Your task to perform on an android device: Search for Italian restaurants on Maps Image 0: 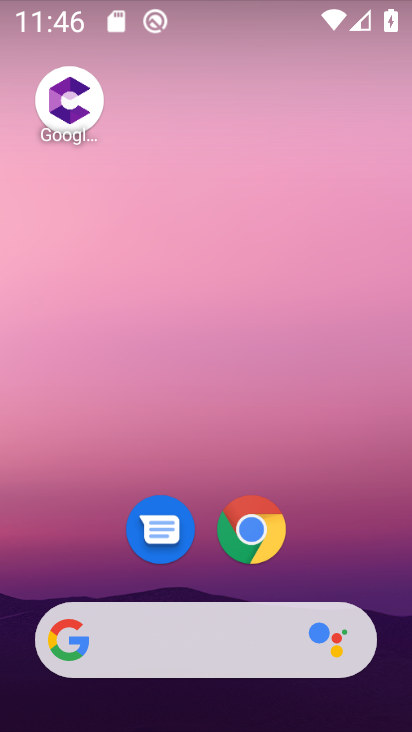
Step 0: drag from (327, 497) to (344, 112)
Your task to perform on an android device: Search for Italian restaurants on Maps Image 1: 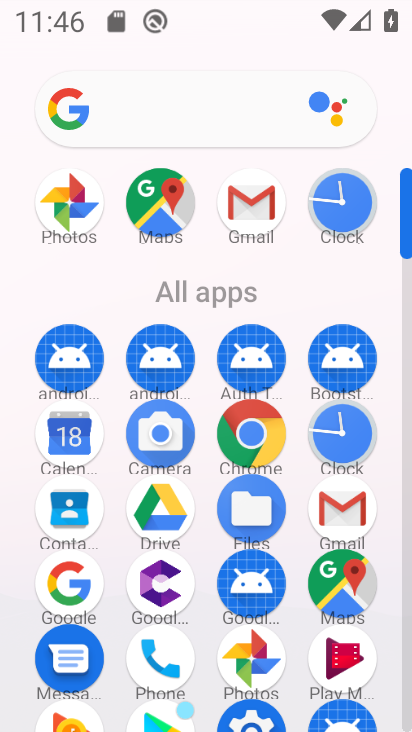
Step 1: click (154, 211)
Your task to perform on an android device: Search for Italian restaurants on Maps Image 2: 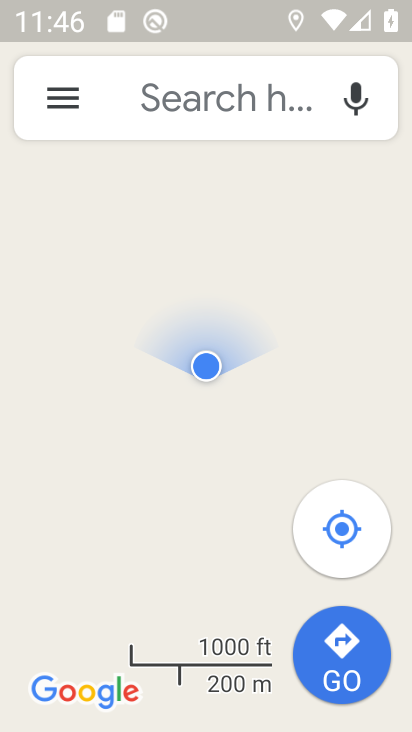
Step 2: click (222, 87)
Your task to perform on an android device: Search for Italian restaurants on Maps Image 3: 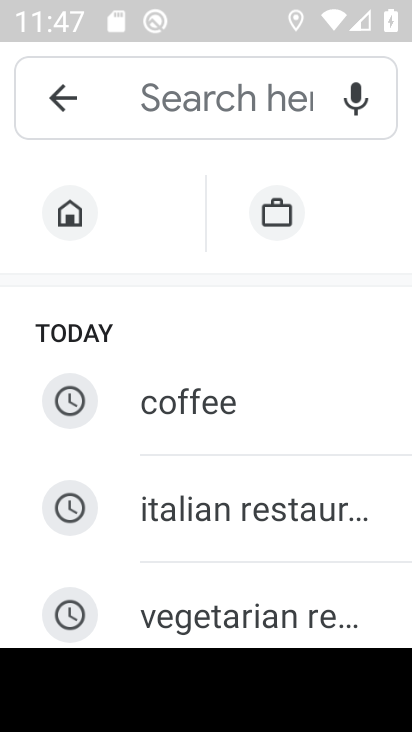
Step 3: click (201, 495)
Your task to perform on an android device: Search for Italian restaurants on Maps Image 4: 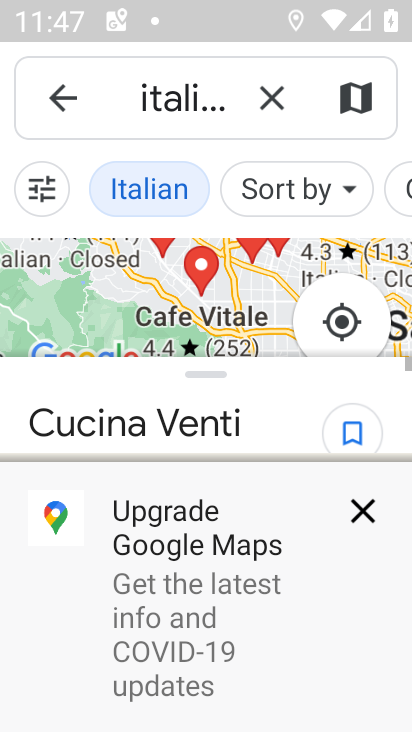
Step 4: task complete